Your task to perform on an android device: turn off translation in the chrome app Image 0: 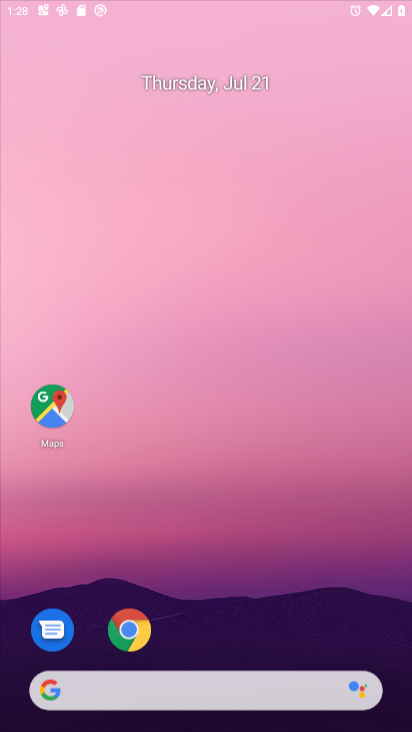
Step 0: drag from (187, 594) to (216, 109)
Your task to perform on an android device: turn off translation in the chrome app Image 1: 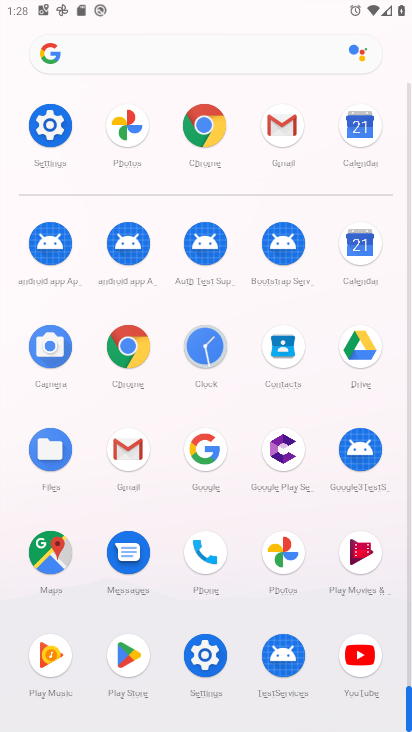
Step 1: click (121, 350)
Your task to perform on an android device: turn off translation in the chrome app Image 2: 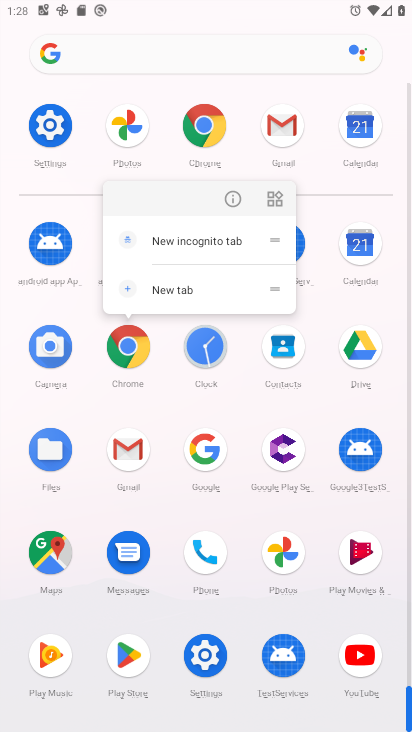
Step 2: click (232, 199)
Your task to perform on an android device: turn off translation in the chrome app Image 3: 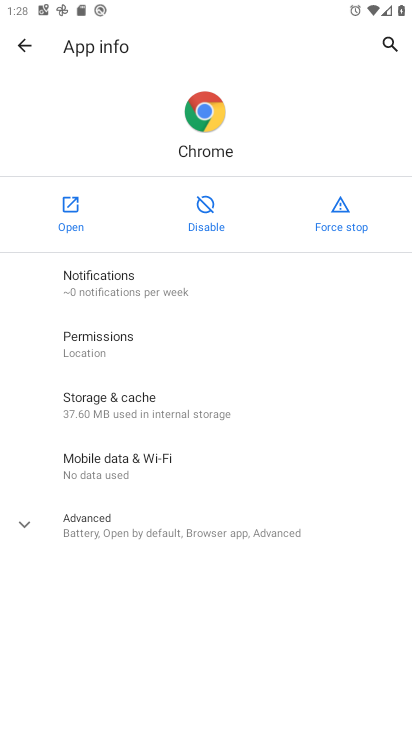
Step 3: click (74, 218)
Your task to perform on an android device: turn off translation in the chrome app Image 4: 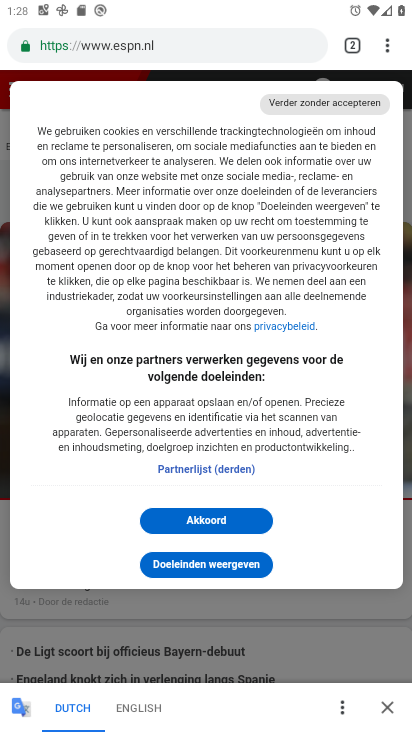
Step 4: drag from (385, 42) to (241, 554)
Your task to perform on an android device: turn off translation in the chrome app Image 5: 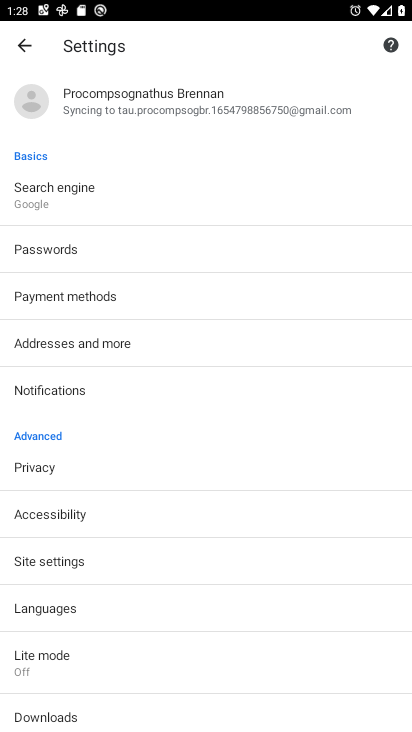
Step 5: click (80, 573)
Your task to perform on an android device: turn off translation in the chrome app Image 6: 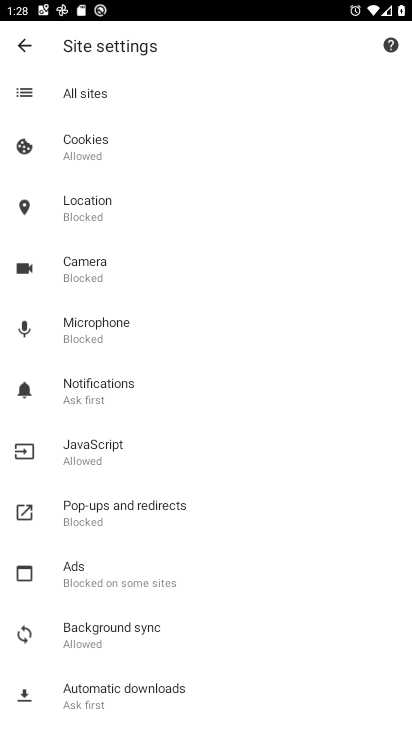
Step 6: click (27, 46)
Your task to perform on an android device: turn off translation in the chrome app Image 7: 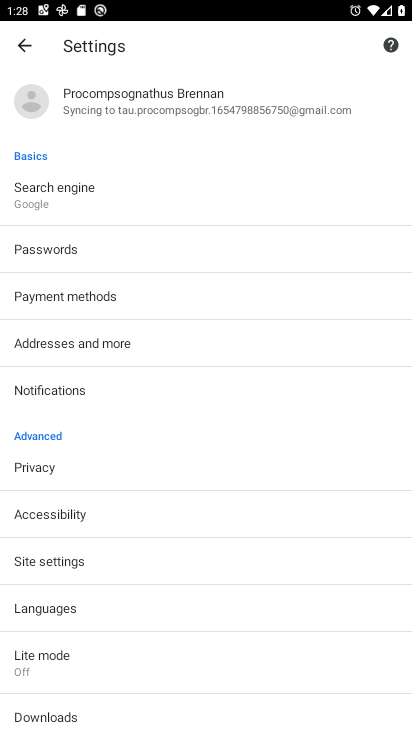
Step 7: click (83, 614)
Your task to perform on an android device: turn off translation in the chrome app Image 8: 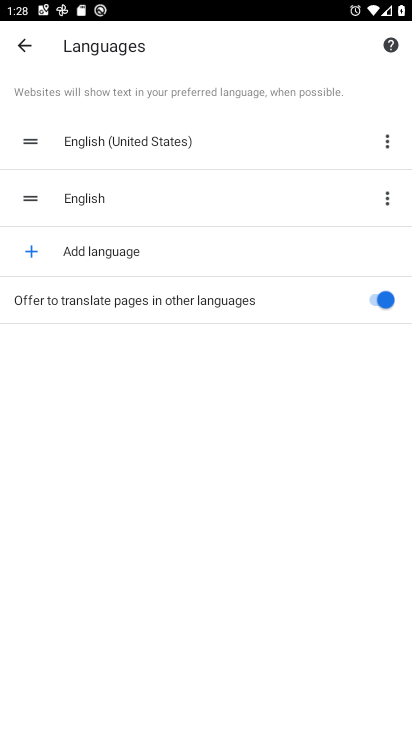
Step 8: click (383, 303)
Your task to perform on an android device: turn off translation in the chrome app Image 9: 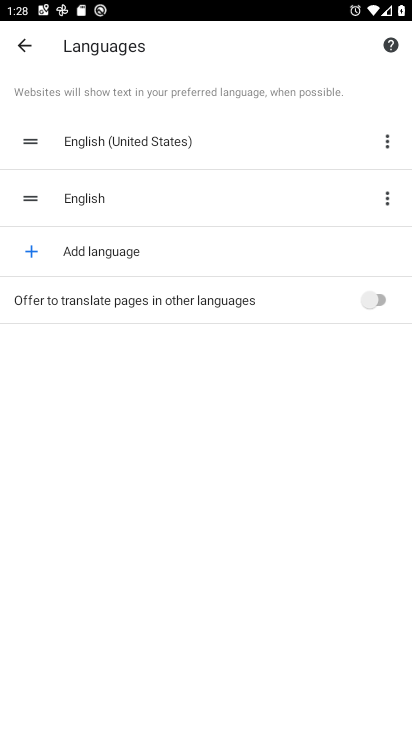
Step 9: task complete